Your task to perform on an android device: toggle show notifications on the lock screen Image 0: 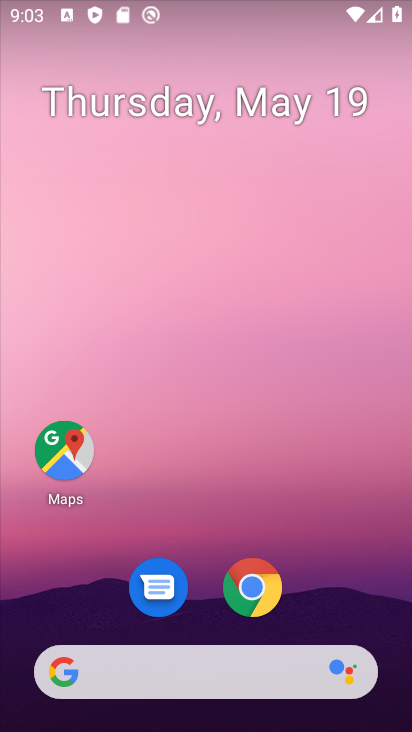
Step 0: drag from (359, 596) to (336, 21)
Your task to perform on an android device: toggle show notifications on the lock screen Image 1: 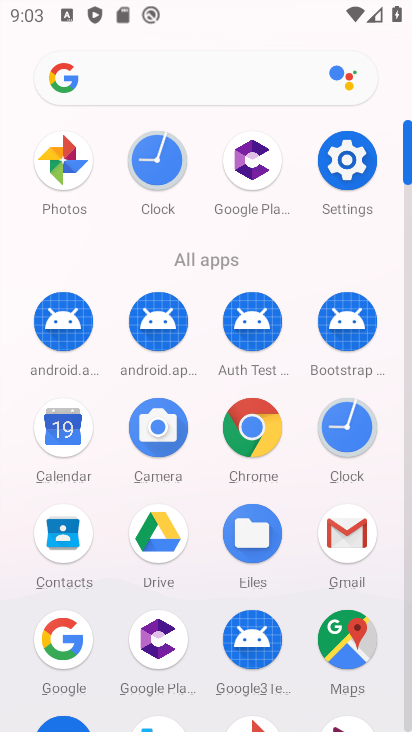
Step 1: click (344, 163)
Your task to perform on an android device: toggle show notifications on the lock screen Image 2: 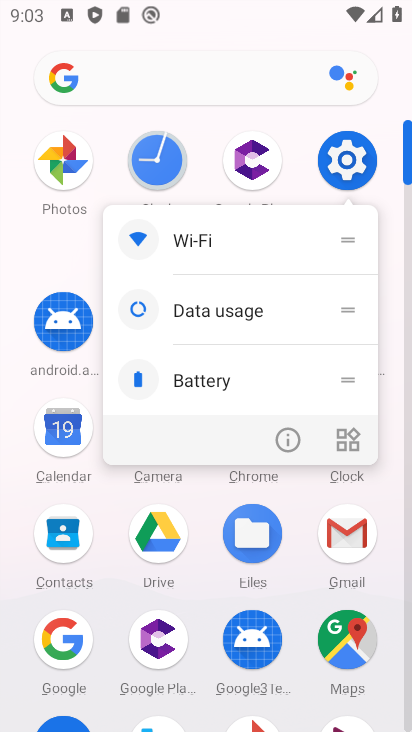
Step 2: click (347, 164)
Your task to perform on an android device: toggle show notifications on the lock screen Image 3: 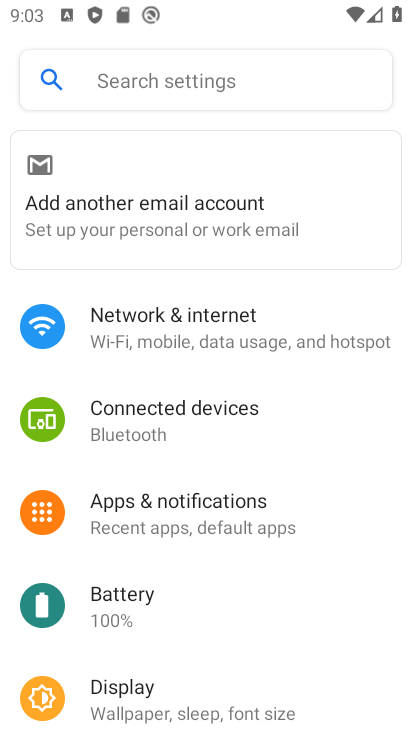
Step 3: click (171, 471)
Your task to perform on an android device: toggle show notifications on the lock screen Image 4: 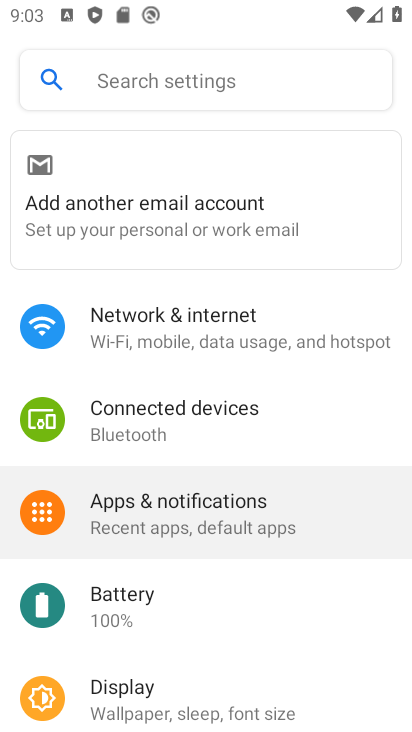
Step 4: click (187, 507)
Your task to perform on an android device: toggle show notifications on the lock screen Image 5: 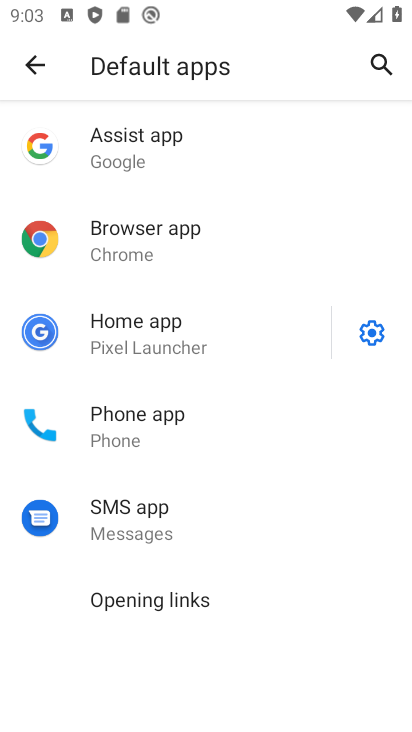
Step 5: click (37, 82)
Your task to perform on an android device: toggle show notifications on the lock screen Image 6: 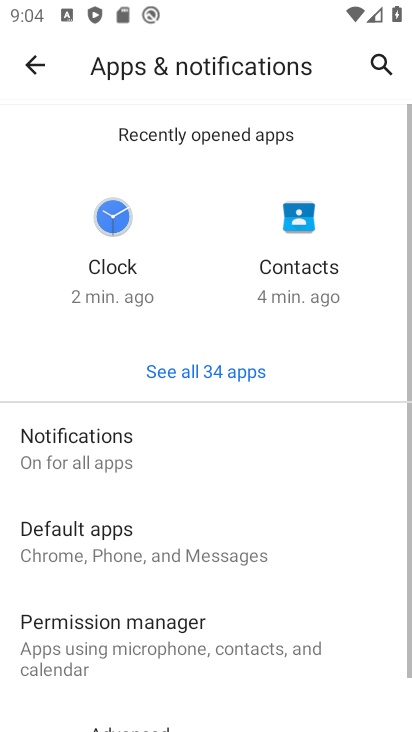
Step 6: click (93, 453)
Your task to perform on an android device: toggle show notifications on the lock screen Image 7: 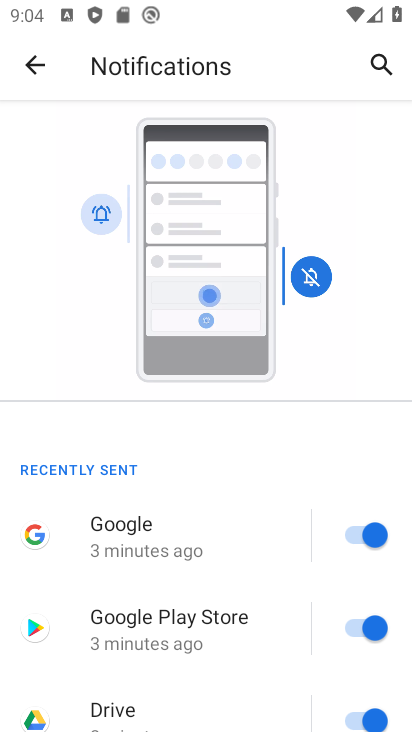
Step 7: drag from (239, 675) to (259, 222)
Your task to perform on an android device: toggle show notifications on the lock screen Image 8: 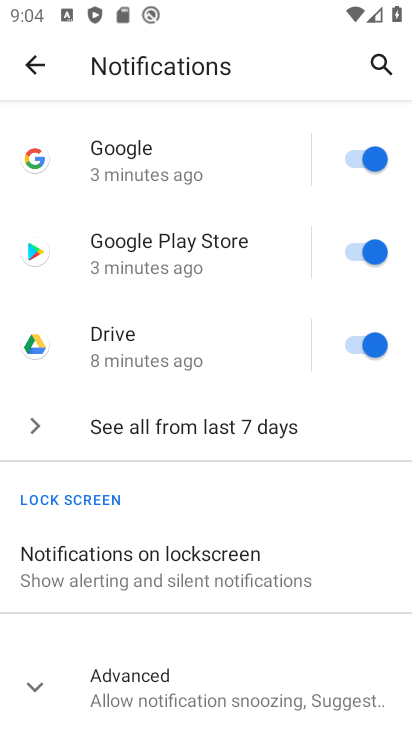
Step 8: click (167, 582)
Your task to perform on an android device: toggle show notifications on the lock screen Image 9: 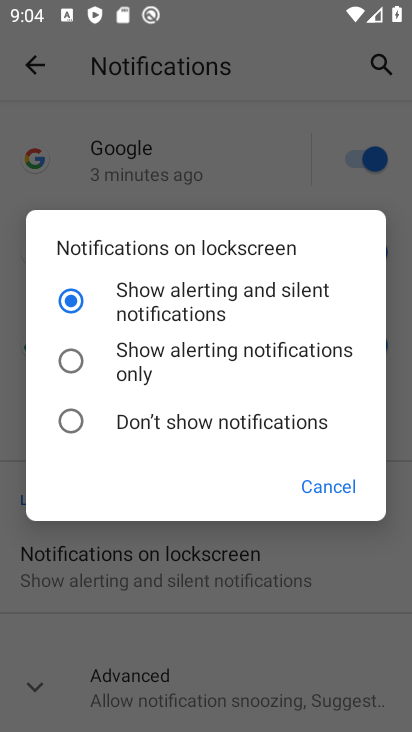
Step 9: click (85, 364)
Your task to perform on an android device: toggle show notifications on the lock screen Image 10: 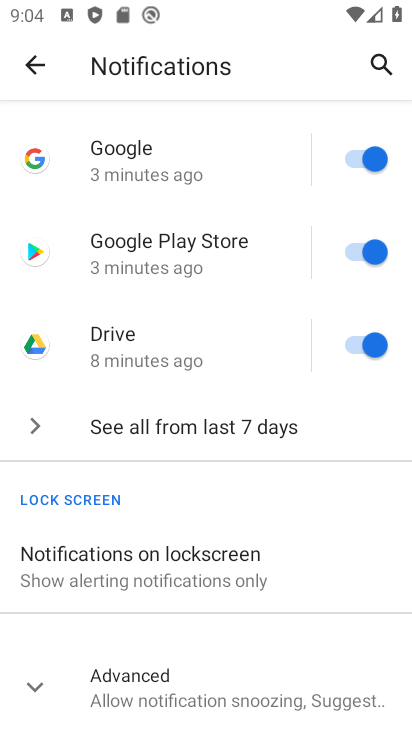
Step 10: task complete